Your task to perform on an android device: Add "rayovac triple a" to the cart on bestbuy.com Image 0: 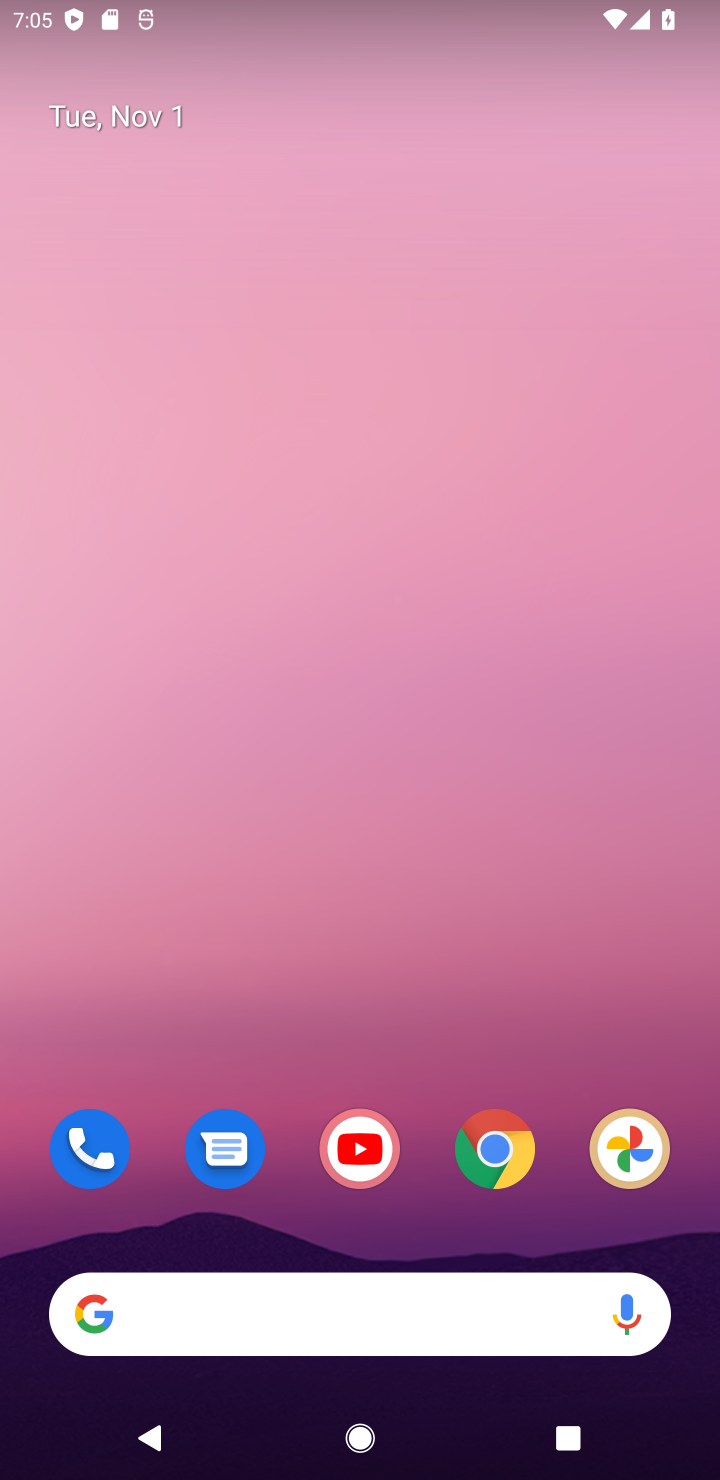
Step 0: drag from (459, 979) to (521, 113)
Your task to perform on an android device: Add "rayovac triple a" to the cart on bestbuy.com Image 1: 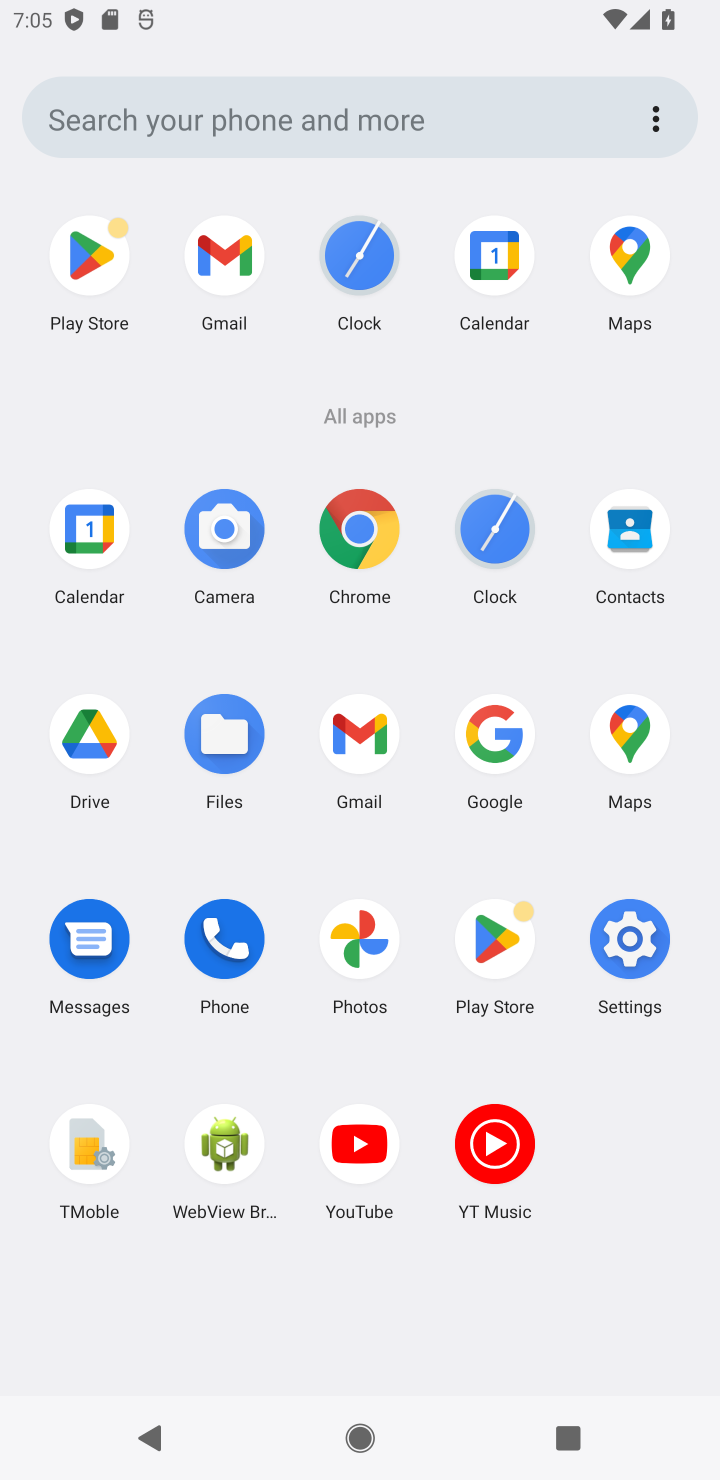
Step 1: click (336, 527)
Your task to perform on an android device: Add "rayovac triple a" to the cart on bestbuy.com Image 2: 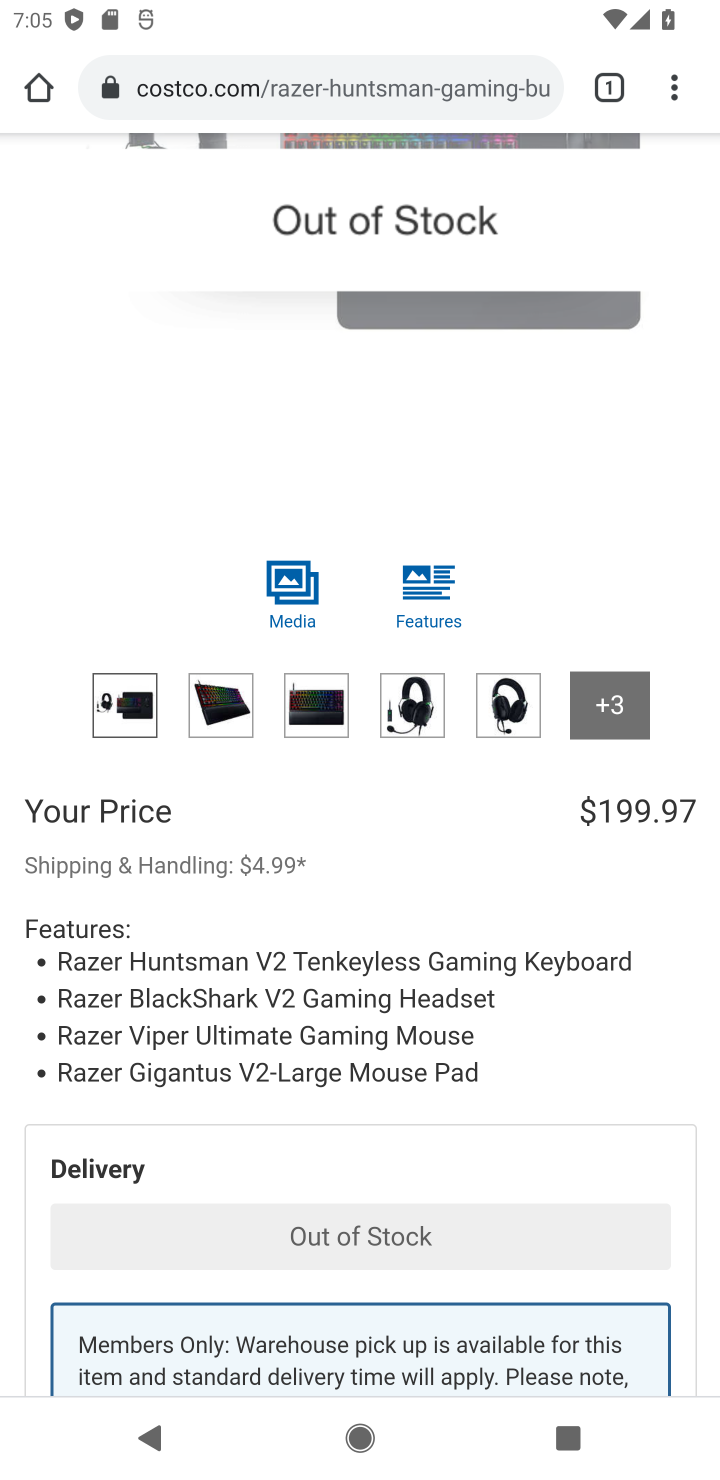
Step 2: click (434, 101)
Your task to perform on an android device: Add "rayovac triple a" to the cart on bestbuy.com Image 3: 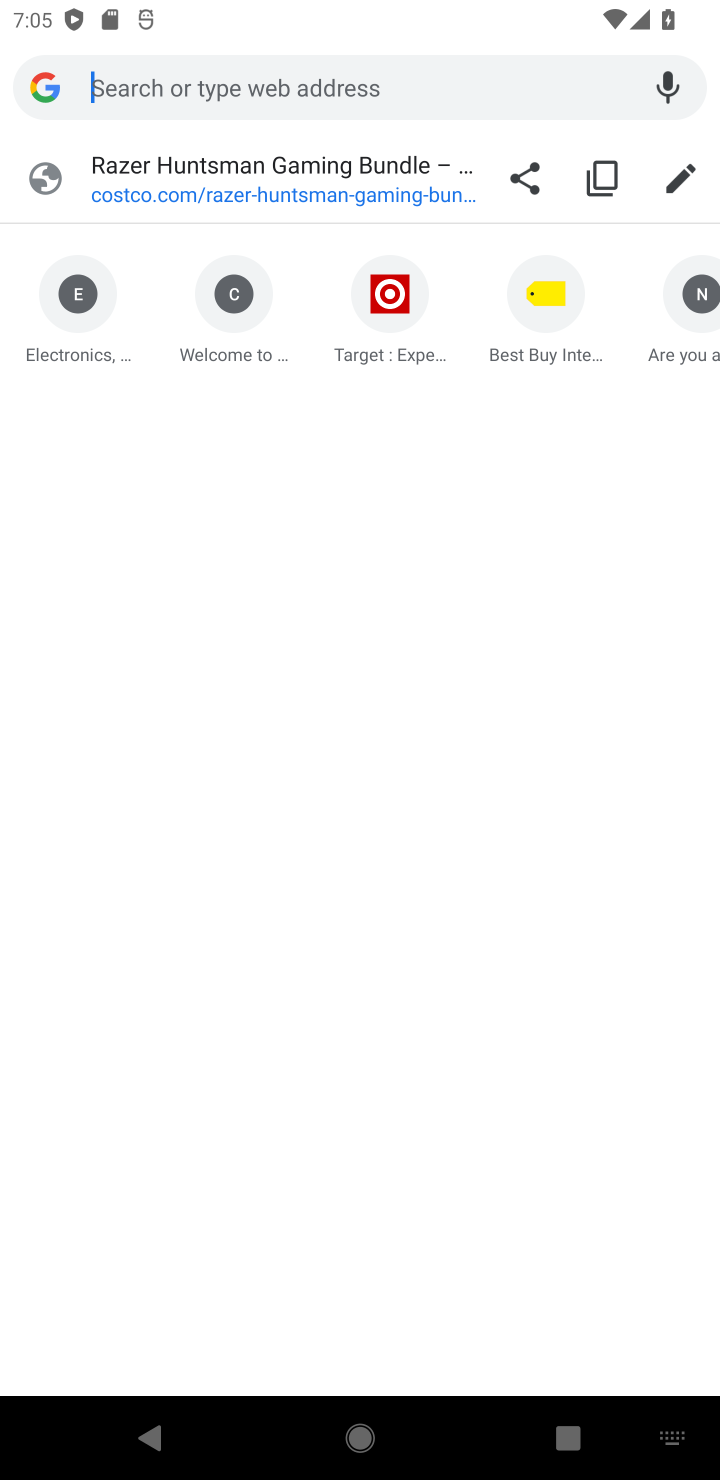
Step 3: type "bestbuy.com"
Your task to perform on an android device: Add "rayovac triple a" to the cart on bestbuy.com Image 4: 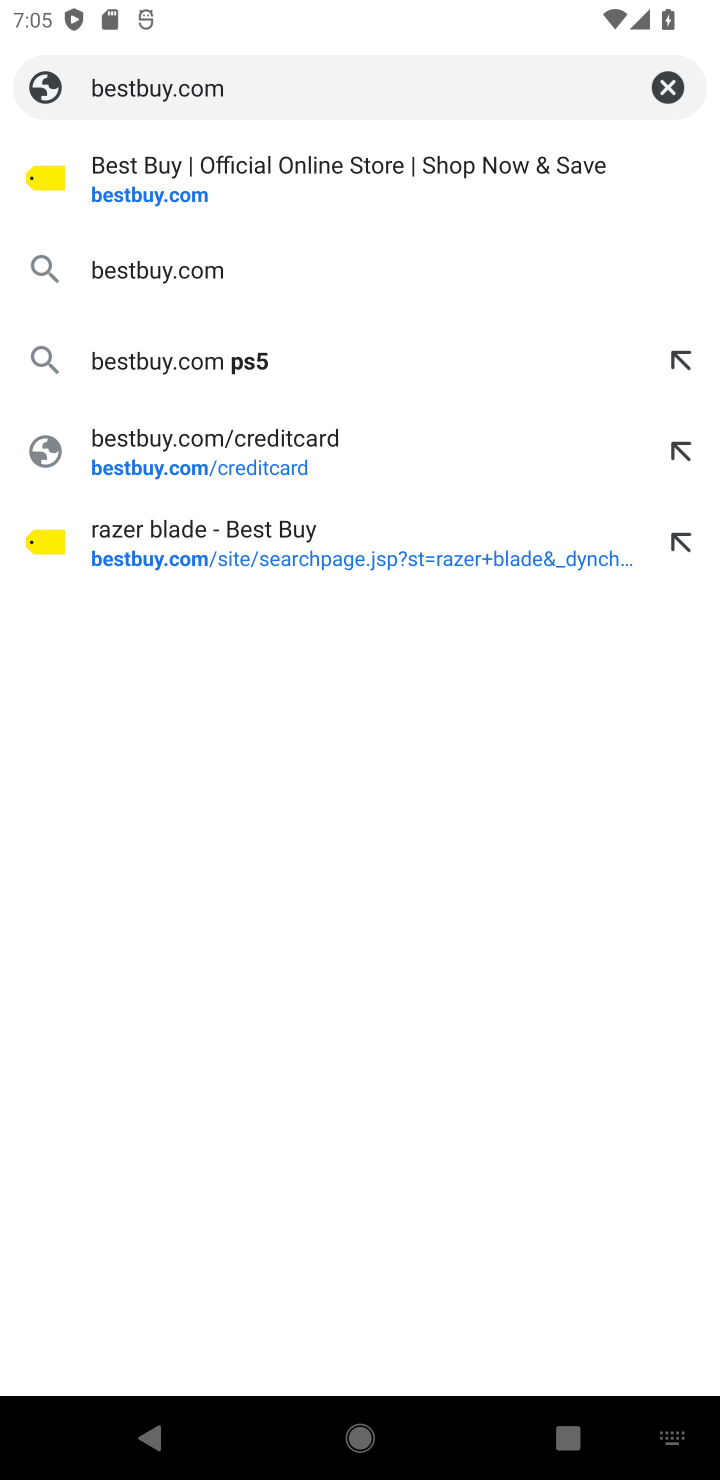
Step 4: press enter
Your task to perform on an android device: Add "rayovac triple a" to the cart on bestbuy.com Image 5: 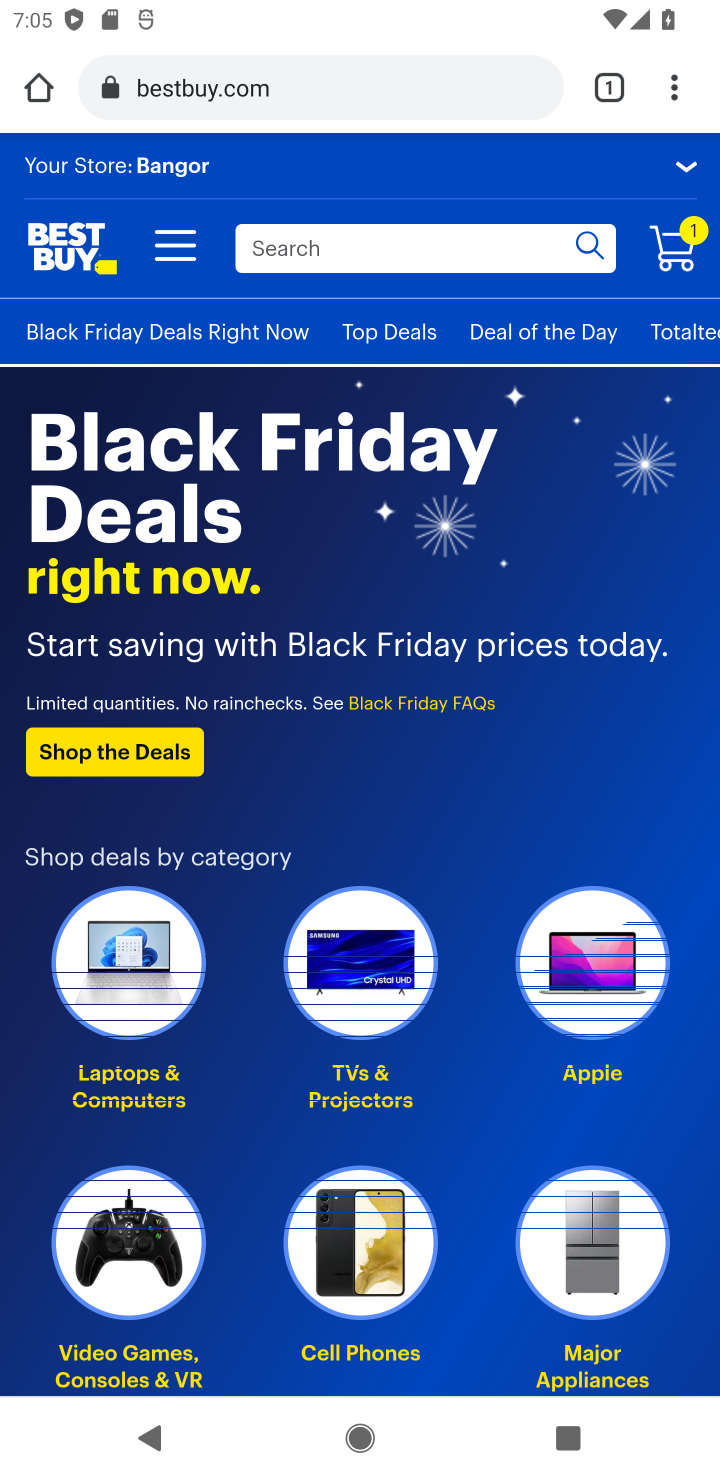
Step 5: click (423, 234)
Your task to perform on an android device: Add "rayovac triple a" to the cart on bestbuy.com Image 6: 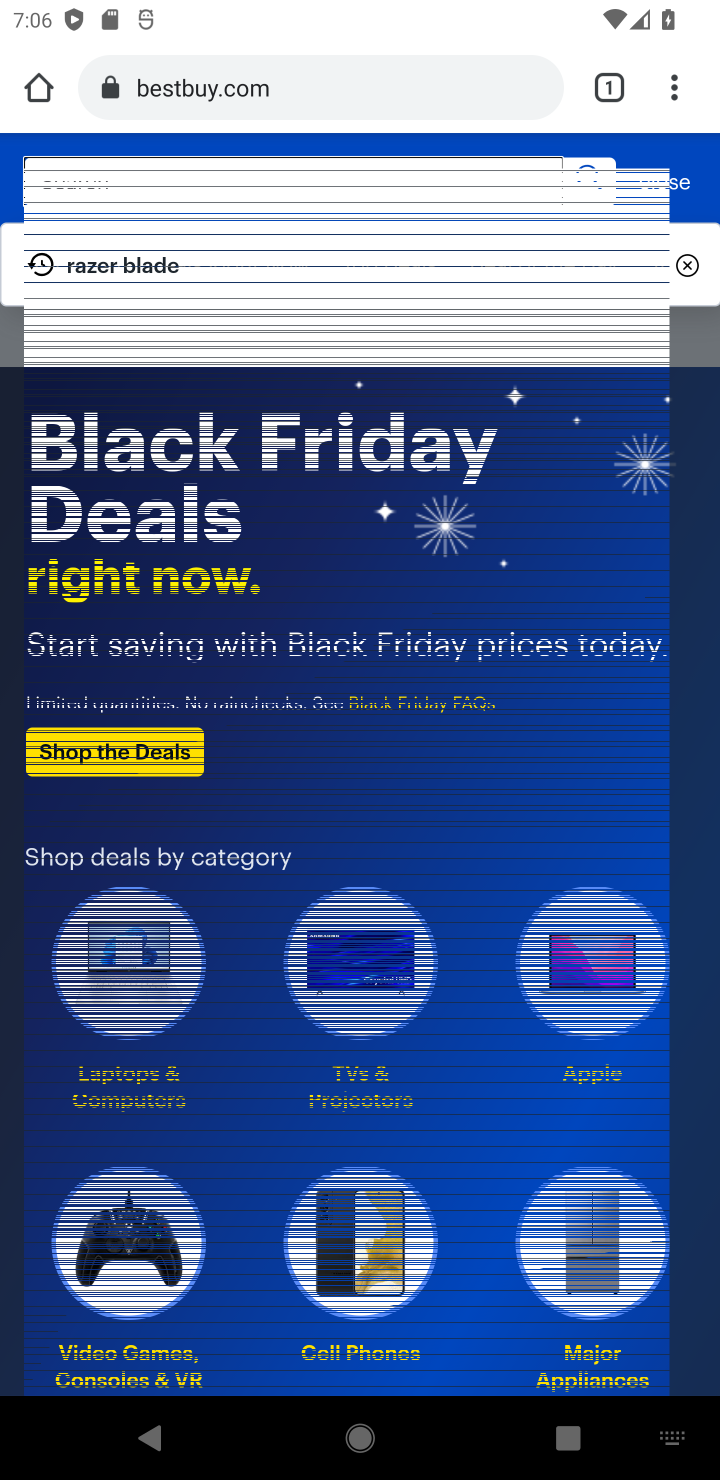
Step 6: type "rayovac triple a"
Your task to perform on an android device: Add "rayovac triple a" to the cart on bestbuy.com Image 7: 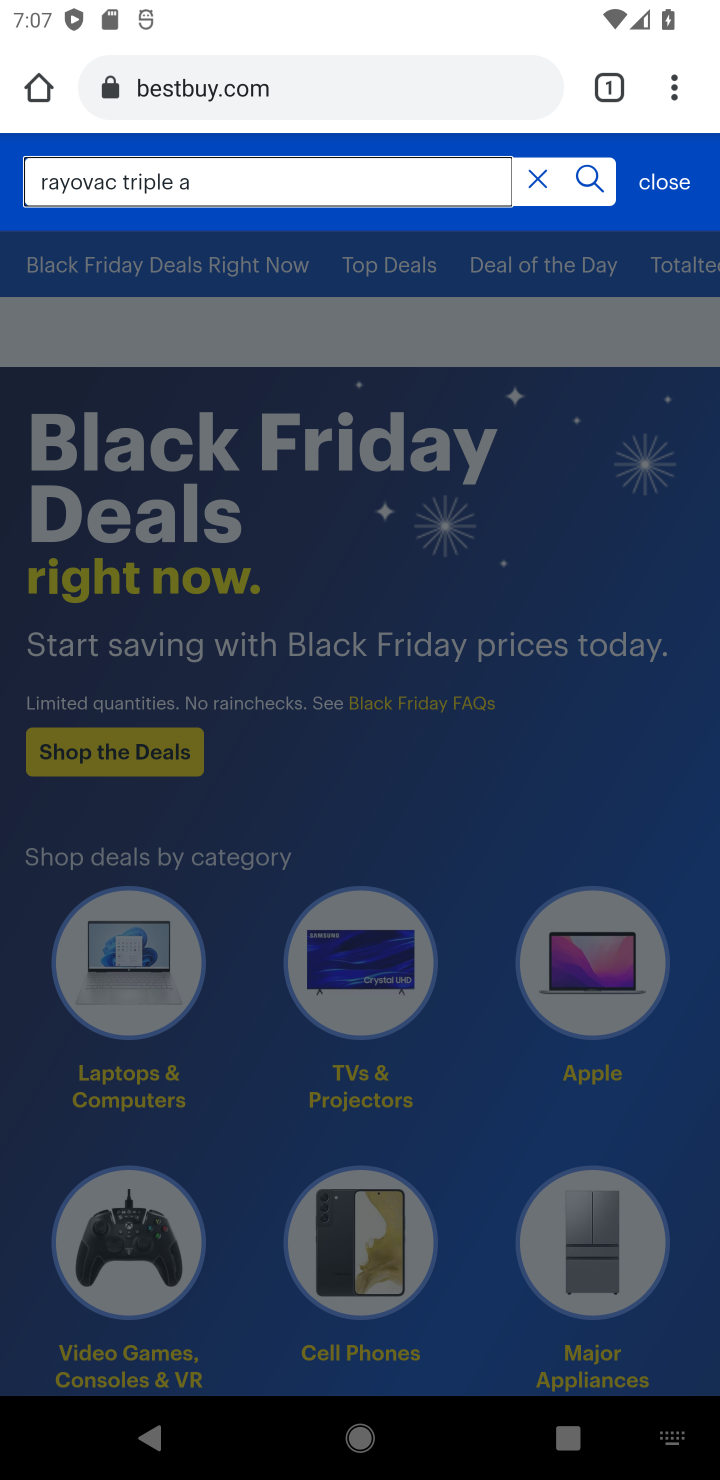
Step 7: press enter
Your task to perform on an android device: Add "rayovac triple a" to the cart on bestbuy.com Image 8: 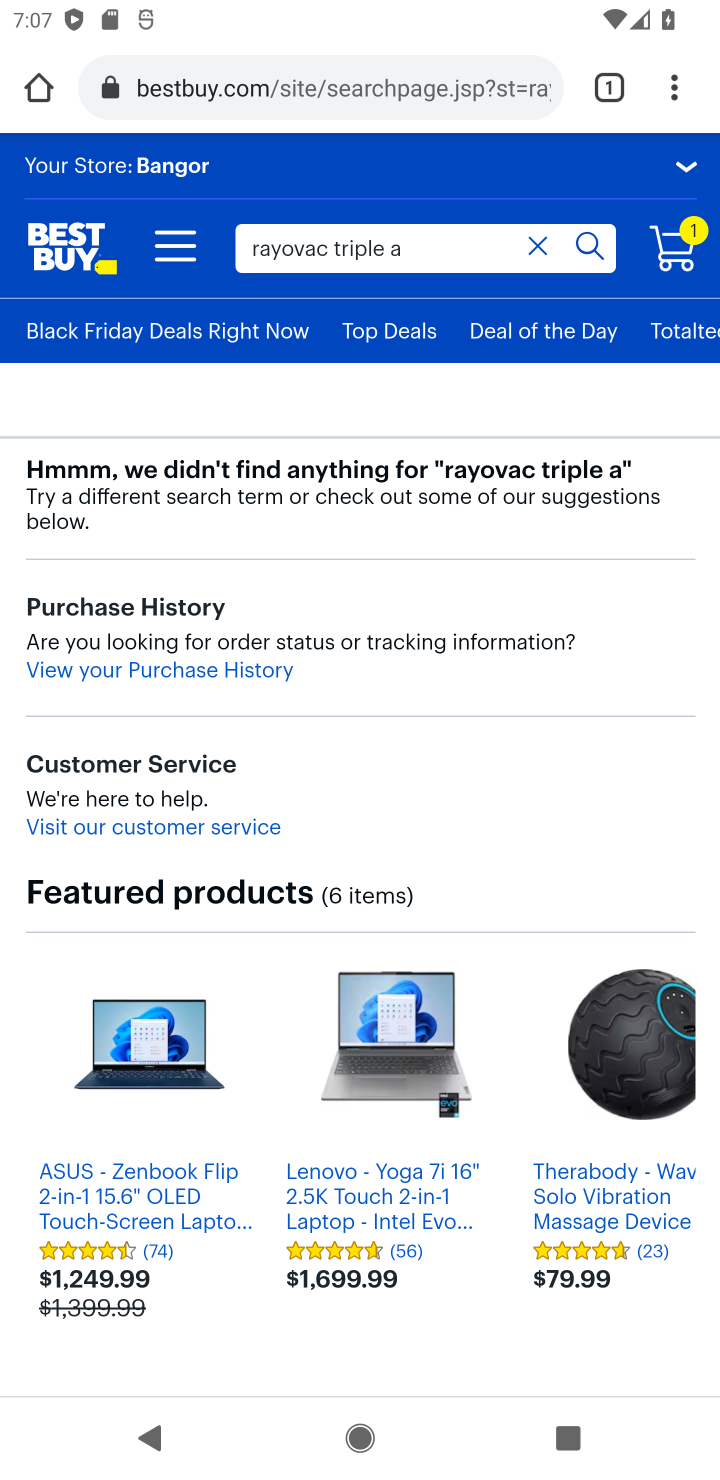
Step 8: task complete